Your task to perform on an android device: Check the news Image 0: 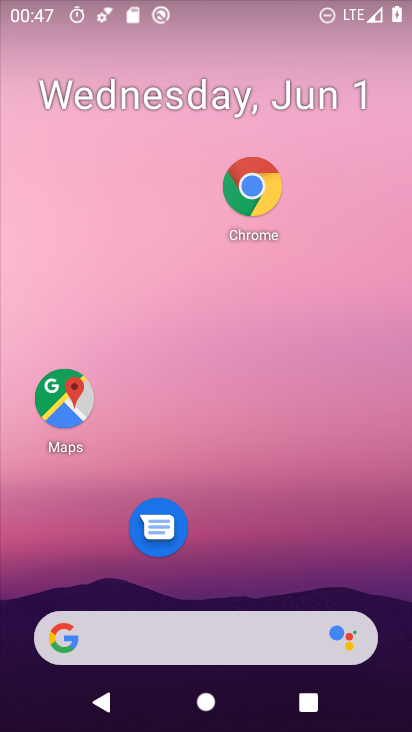
Step 0: drag from (160, 582) to (188, 22)
Your task to perform on an android device: Check the news Image 1: 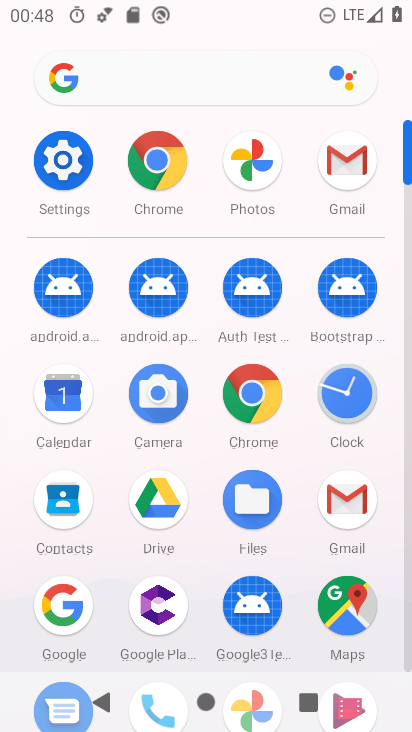
Step 1: click (169, 77)
Your task to perform on an android device: Check the news Image 2: 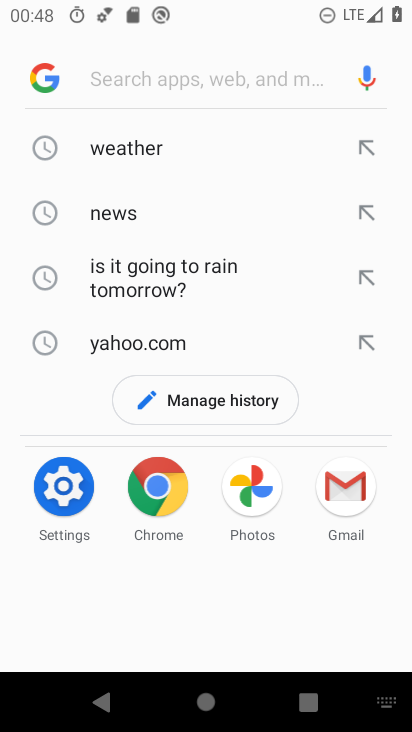
Step 2: click (120, 206)
Your task to perform on an android device: Check the news Image 3: 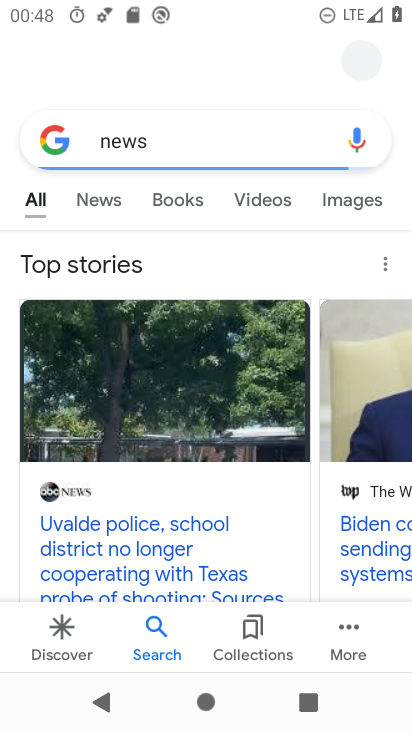
Step 3: task complete